Your task to perform on an android device: check android version Image 0: 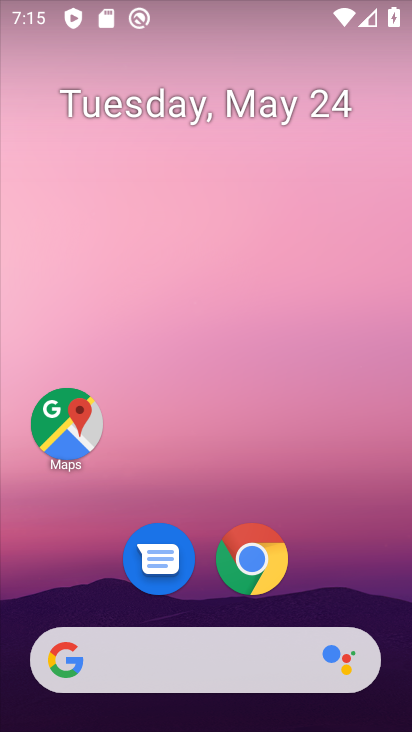
Step 0: drag from (321, 585) to (242, 36)
Your task to perform on an android device: check android version Image 1: 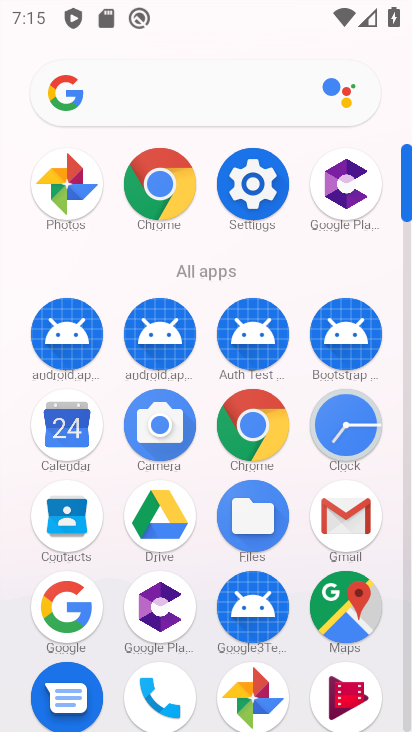
Step 1: click (254, 224)
Your task to perform on an android device: check android version Image 2: 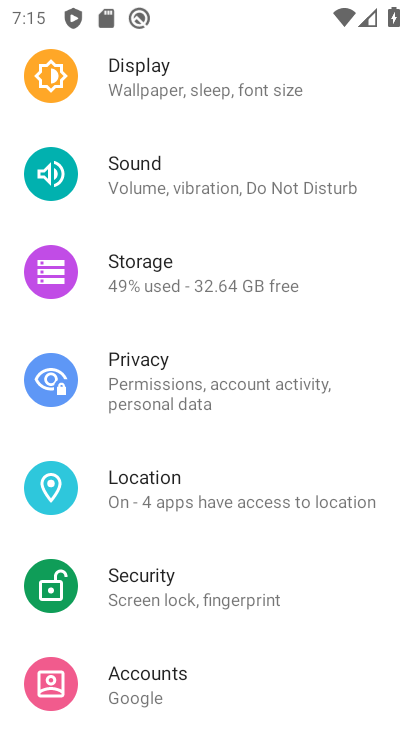
Step 2: drag from (222, 676) to (173, 169)
Your task to perform on an android device: check android version Image 3: 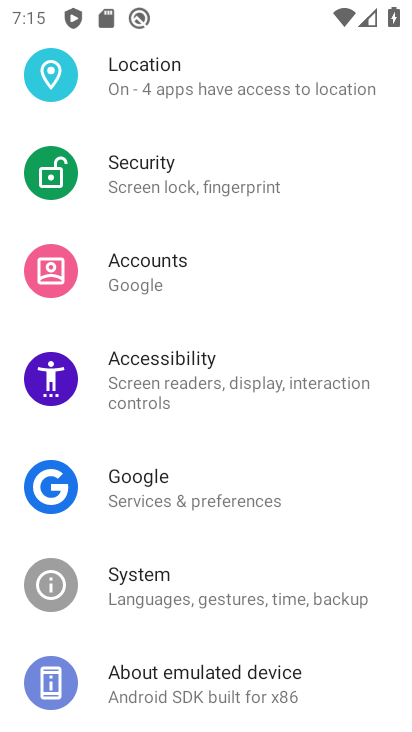
Step 3: click (198, 693)
Your task to perform on an android device: check android version Image 4: 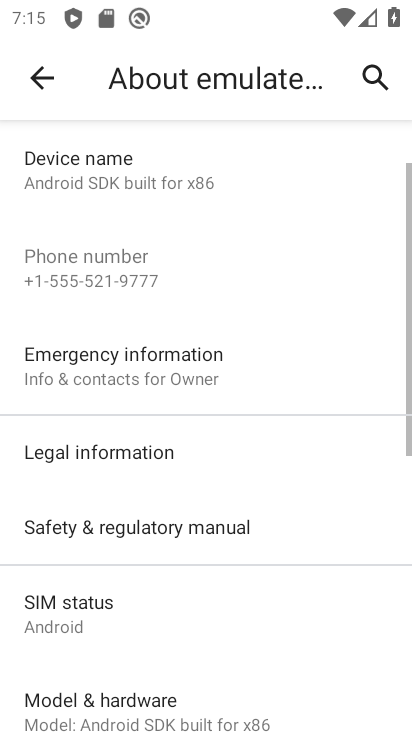
Step 4: drag from (150, 651) to (128, 228)
Your task to perform on an android device: check android version Image 5: 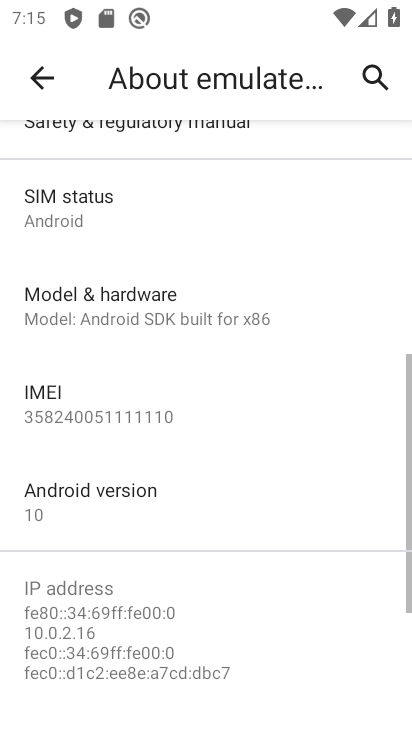
Step 5: click (100, 514)
Your task to perform on an android device: check android version Image 6: 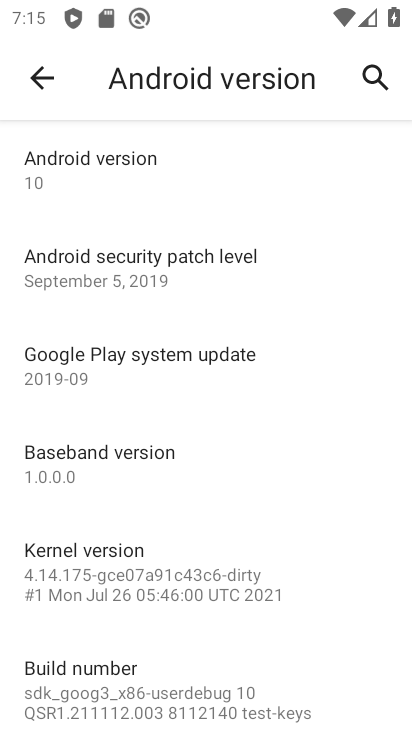
Step 6: task complete